Your task to perform on an android device: see creations saved in the google photos Image 0: 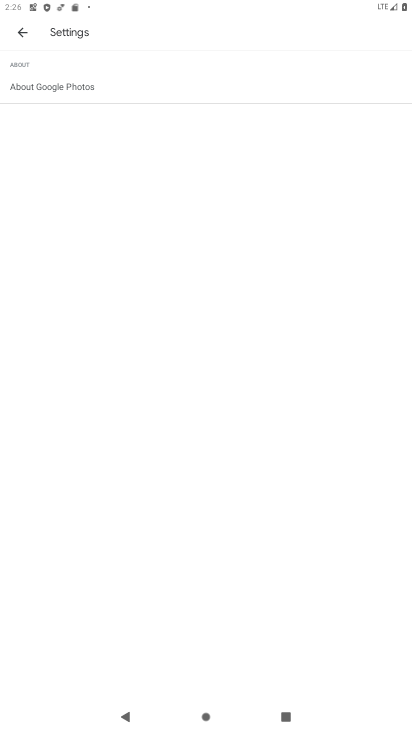
Step 0: press home button
Your task to perform on an android device: see creations saved in the google photos Image 1: 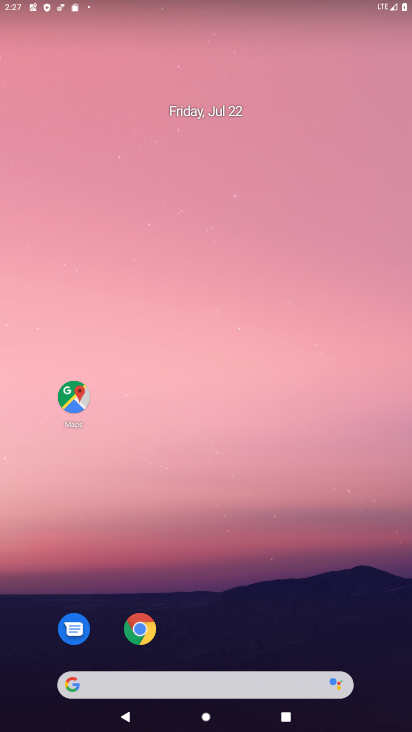
Step 1: drag from (194, 686) to (153, 313)
Your task to perform on an android device: see creations saved in the google photos Image 2: 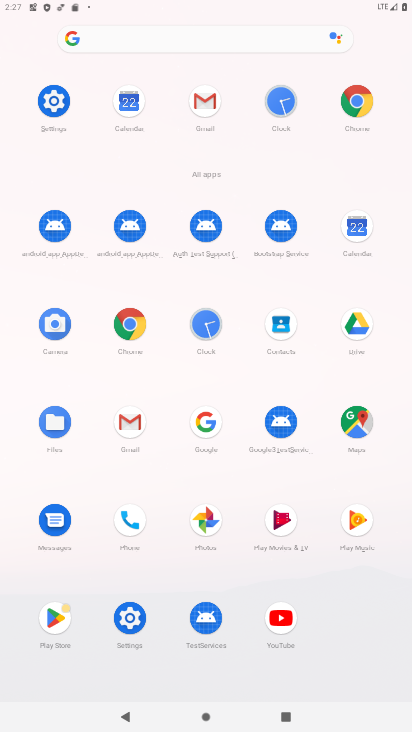
Step 2: click (209, 523)
Your task to perform on an android device: see creations saved in the google photos Image 3: 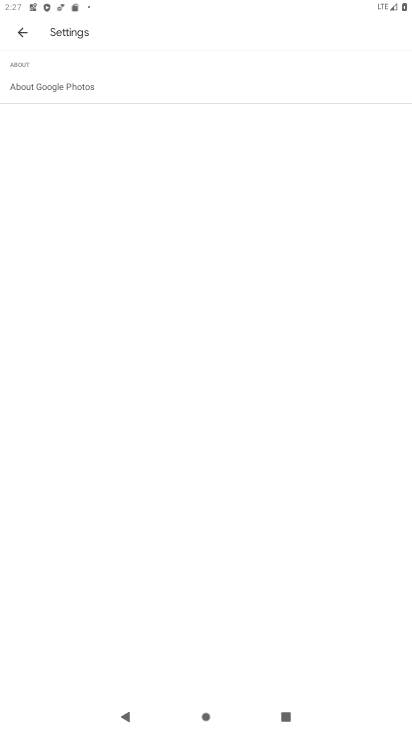
Step 3: click (22, 29)
Your task to perform on an android device: see creations saved in the google photos Image 4: 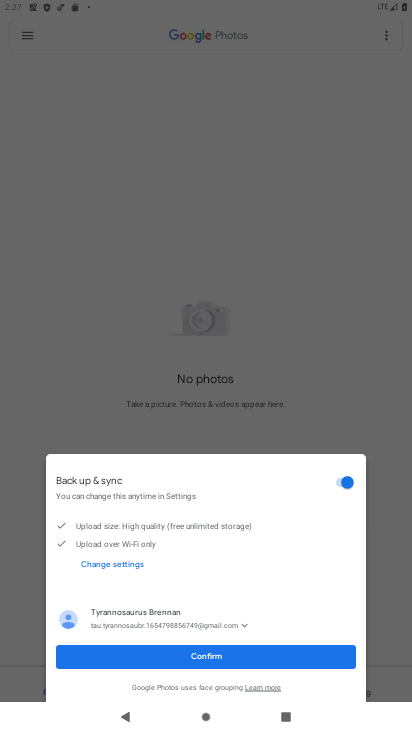
Step 4: click (228, 651)
Your task to perform on an android device: see creations saved in the google photos Image 5: 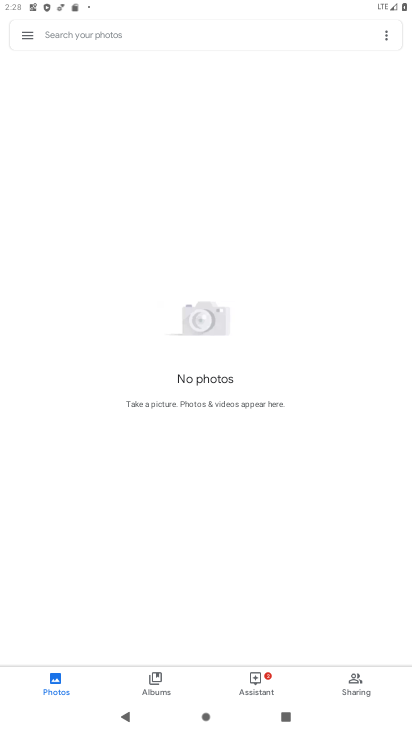
Step 5: click (252, 672)
Your task to perform on an android device: see creations saved in the google photos Image 6: 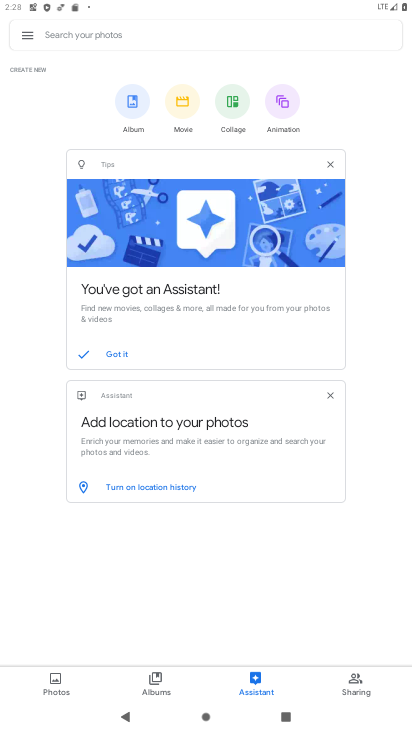
Step 6: task complete